Your task to perform on an android device: turn off location Image 0: 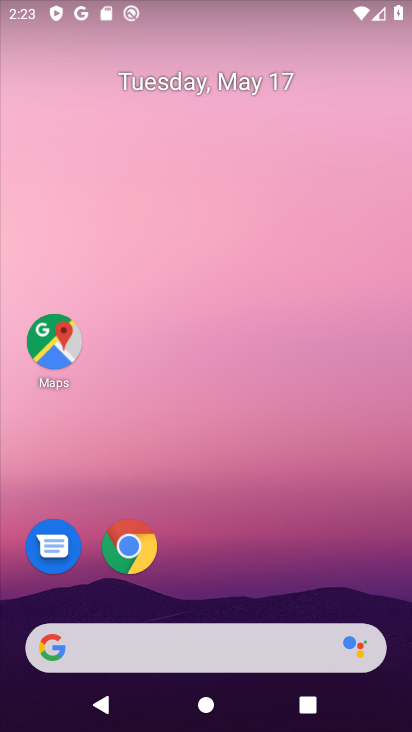
Step 0: drag from (226, 584) to (329, 69)
Your task to perform on an android device: turn off location Image 1: 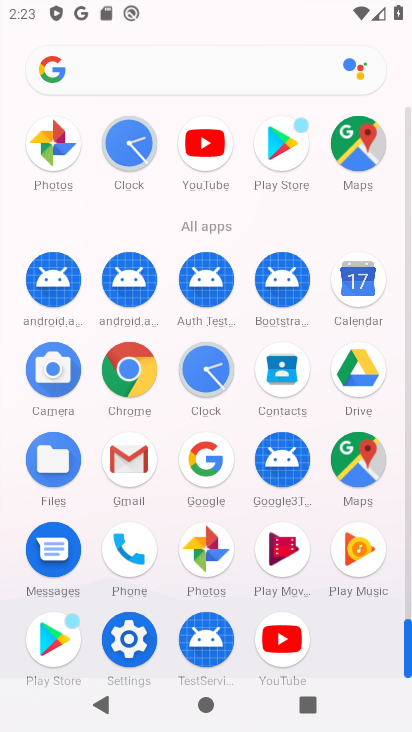
Step 1: click (137, 635)
Your task to perform on an android device: turn off location Image 2: 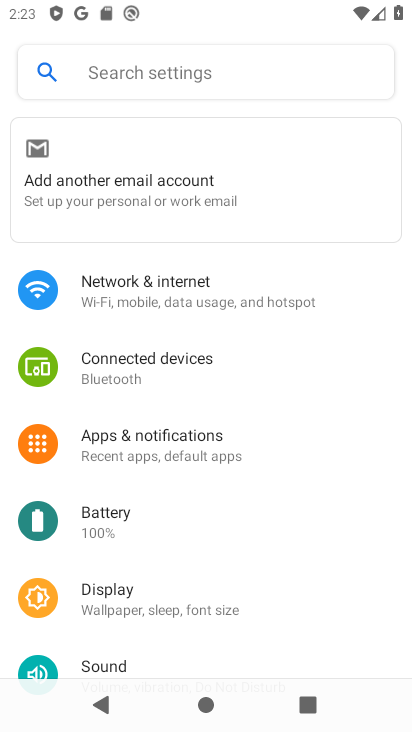
Step 2: drag from (105, 599) to (194, 319)
Your task to perform on an android device: turn off location Image 3: 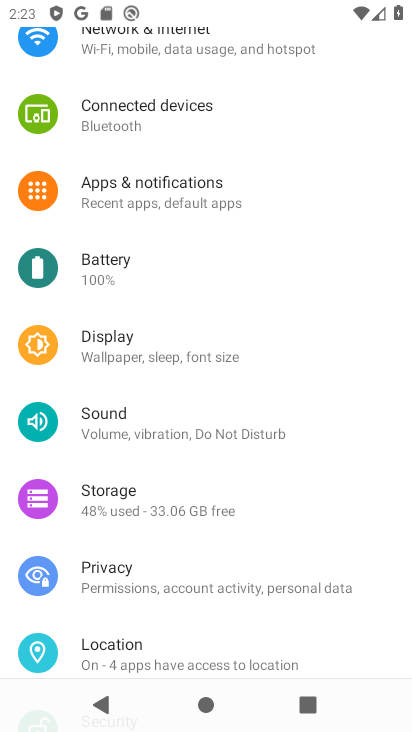
Step 3: drag from (136, 566) to (177, 370)
Your task to perform on an android device: turn off location Image 4: 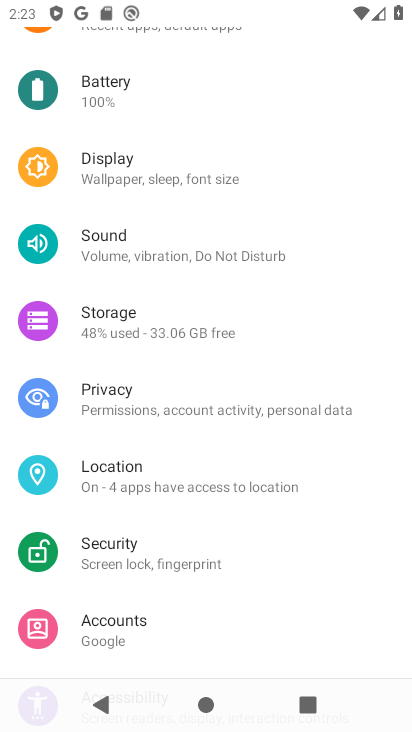
Step 4: click (145, 472)
Your task to perform on an android device: turn off location Image 5: 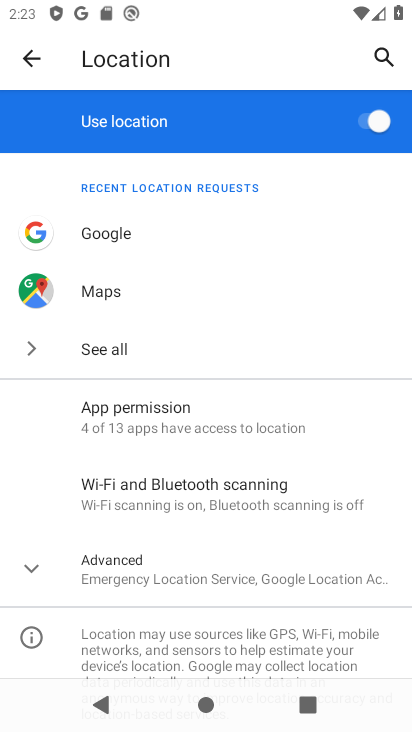
Step 5: click (348, 126)
Your task to perform on an android device: turn off location Image 6: 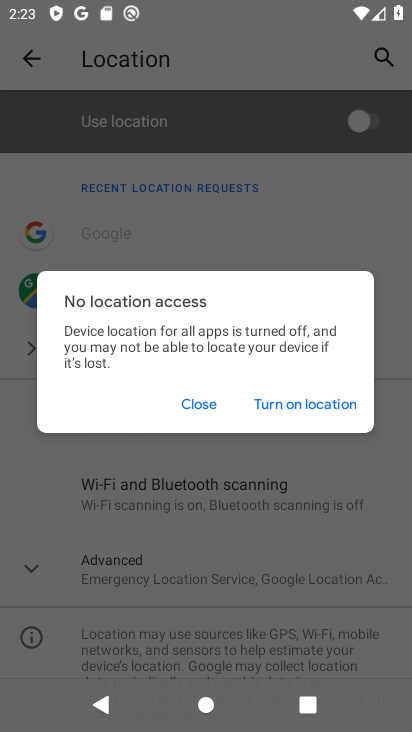
Step 6: click (209, 402)
Your task to perform on an android device: turn off location Image 7: 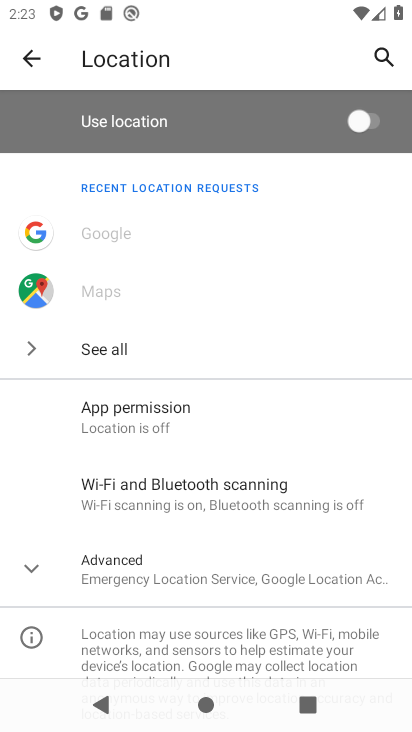
Step 7: task complete